Your task to perform on an android device: toggle sleep mode Image 0: 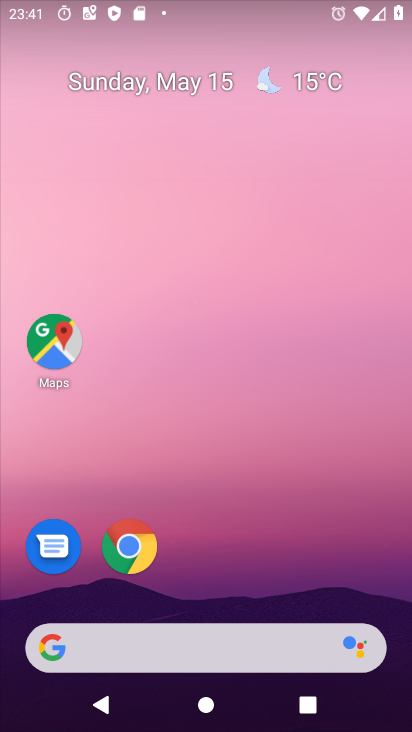
Step 0: drag from (302, 667) to (242, 117)
Your task to perform on an android device: toggle sleep mode Image 1: 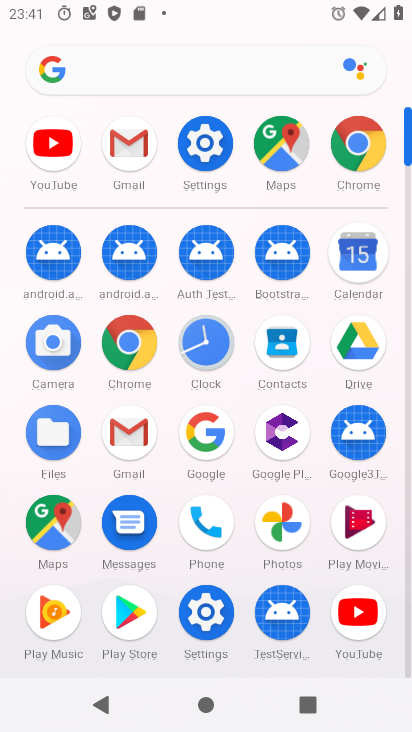
Step 1: click (200, 139)
Your task to perform on an android device: toggle sleep mode Image 2: 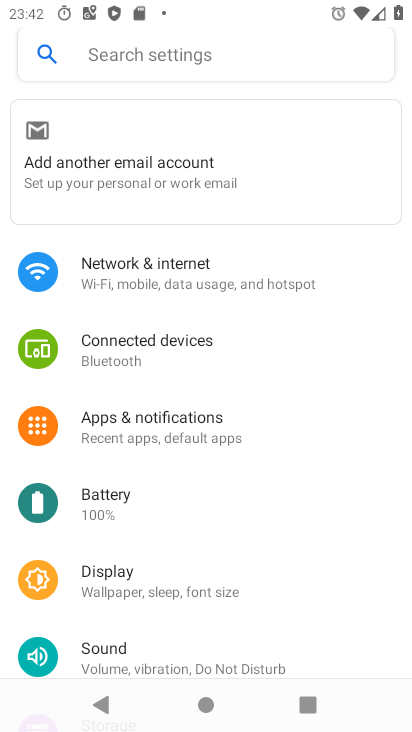
Step 2: drag from (154, 516) to (127, 276)
Your task to perform on an android device: toggle sleep mode Image 3: 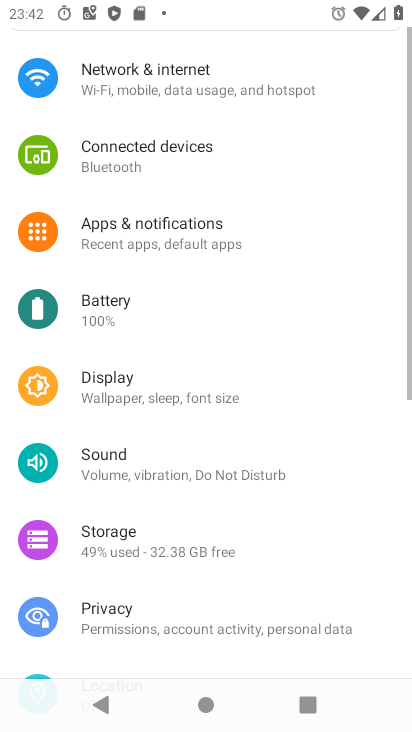
Step 3: drag from (158, 418) to (133, 155)
Your task to perform on an android device: toggle sleep mode Image 4: 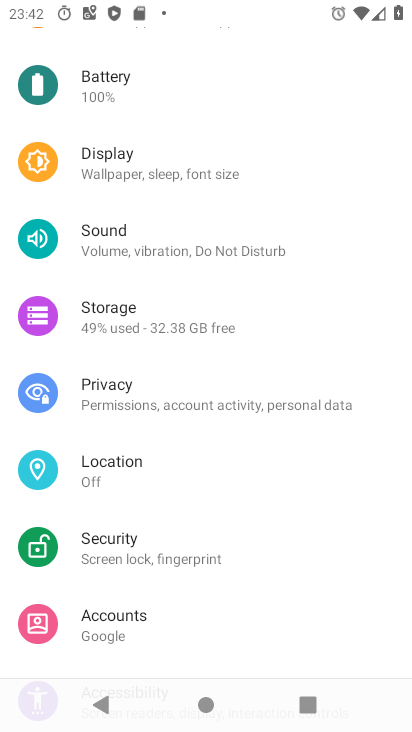
Step 4: drag from (125, 229) to (218, 581)
Your task to perform on an android device: toggle sleep mode Image 5: 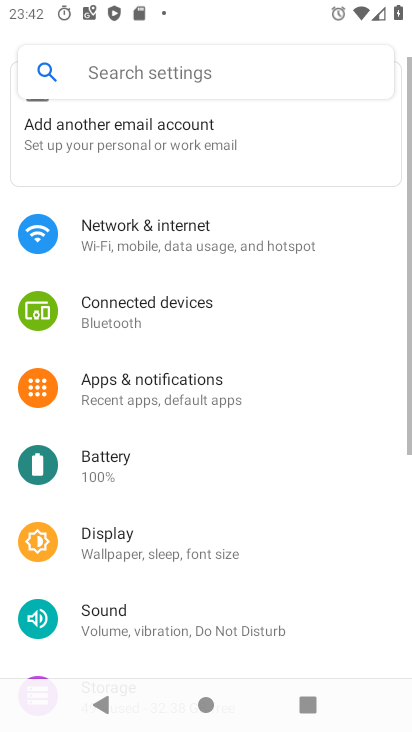
Step 5: drag from (148, 260) to (146, 639)
Your task to perform on an android device: toggle sleep mode Image 6: 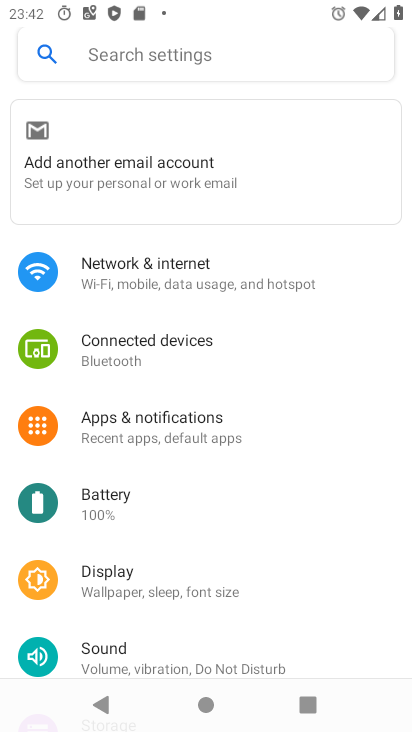
Step 6: click (113, 580)
Your task to perform on an android device: toggle sleep mode Image 7: 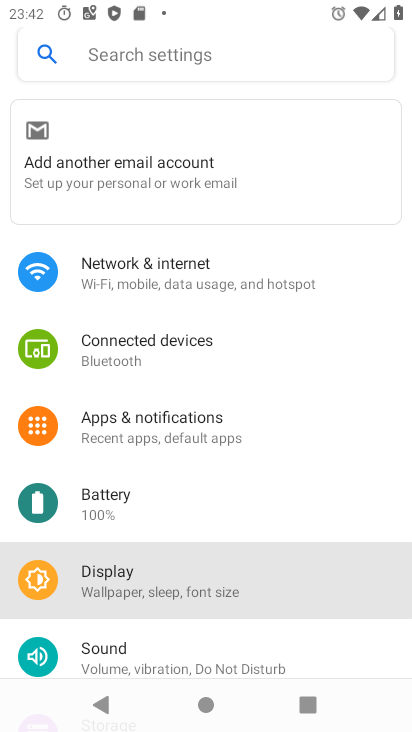
Step 7: click (113, 580)
Your task to perform on an android device: toggle sleep mode Image 8: 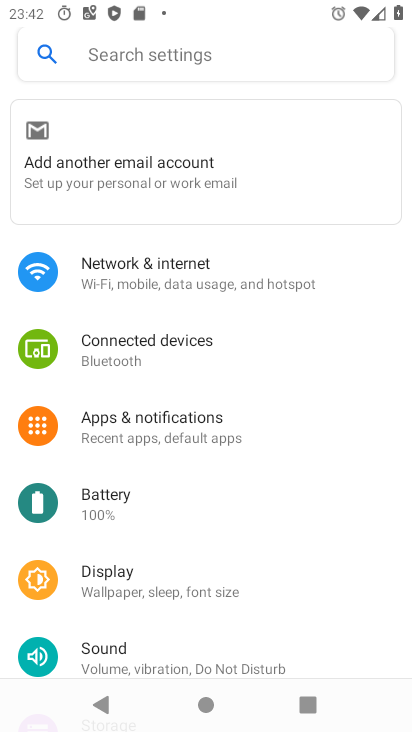
Step 8: click (113, 580)
Your task to perform on an android device: toggle sleep mode Image 9: 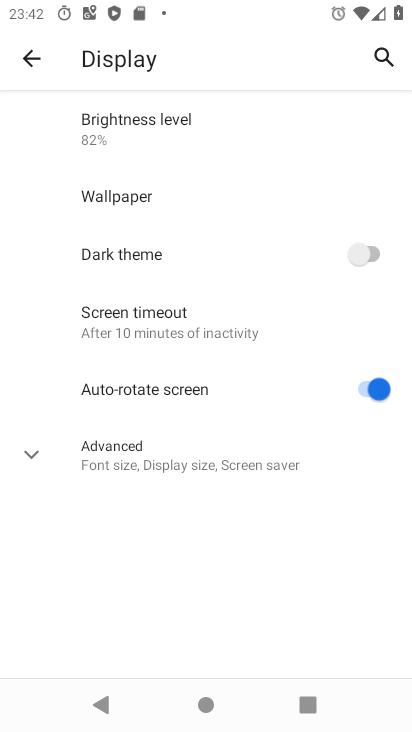
Step 9: click (129, 340)
Your task to perform on an android device: toggle sleep mode Image 10: 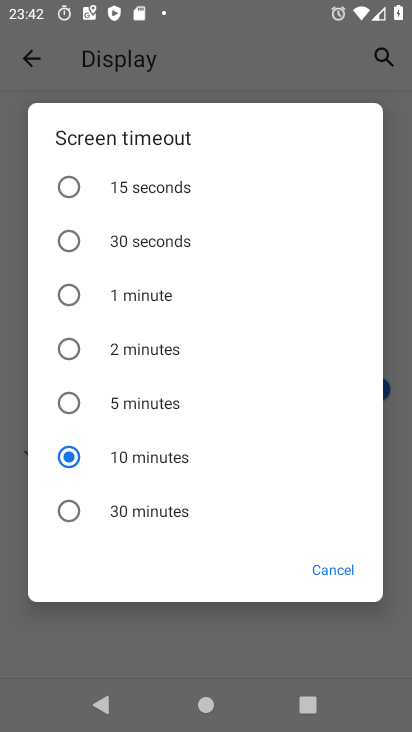
Step 10: click (69, 405)
Your task to perform on an android device: toggle sleep mode Image 11: 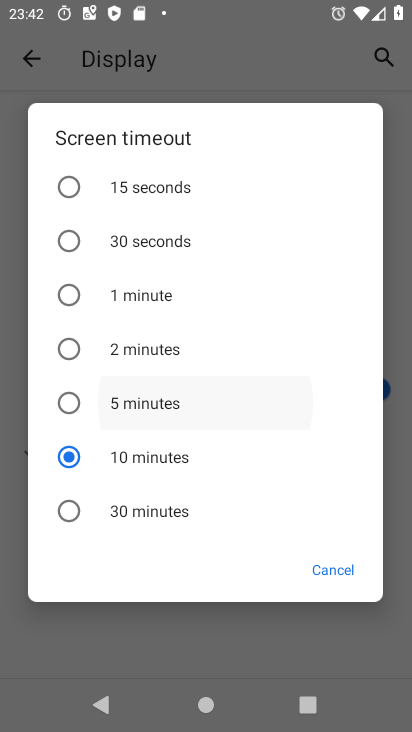
Step 11: click (69, 397)
Your task to perform on an android device: toggle sleep mode Image 12: 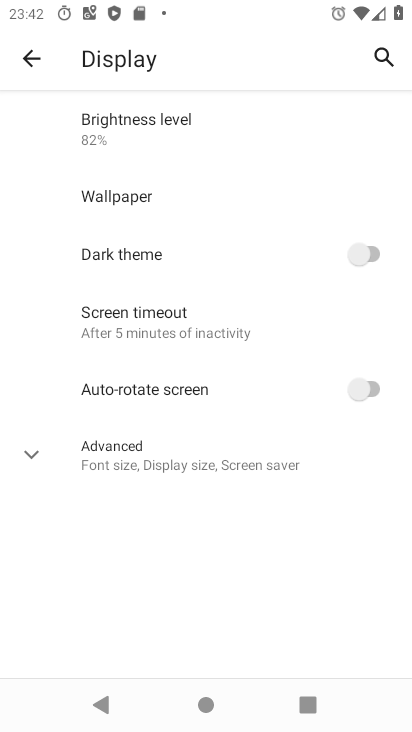
Step 12: click (351, 390)
Your task to perform on an android device: toggle sleep mode Image 13: 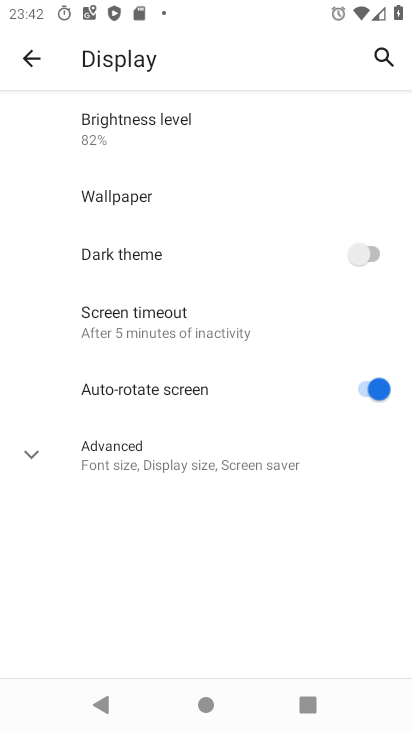
Step 13: click (131, 325)
Your task to perform on an android device: toggle sleep mode Image 14: 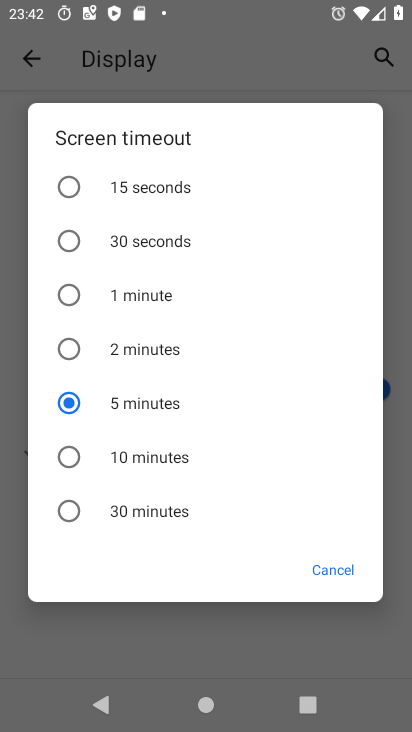
Step 14: click (64, 354)
Your task to perform on an android device: toggle sleep mode Image 15: 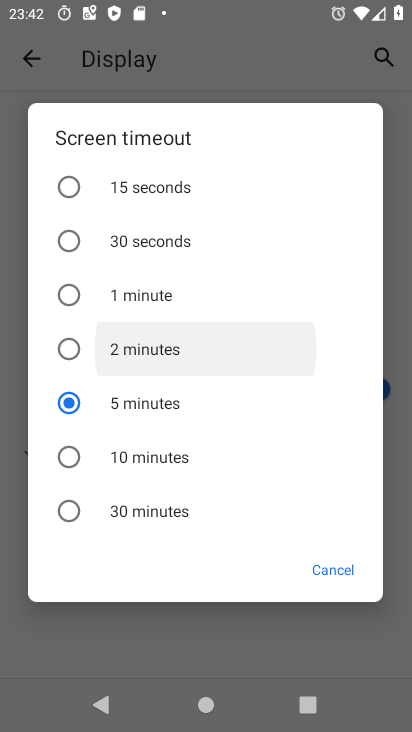
Step 15: click (70, 342)
Your task to perform on an android device: toggle sleep mode Image 16: 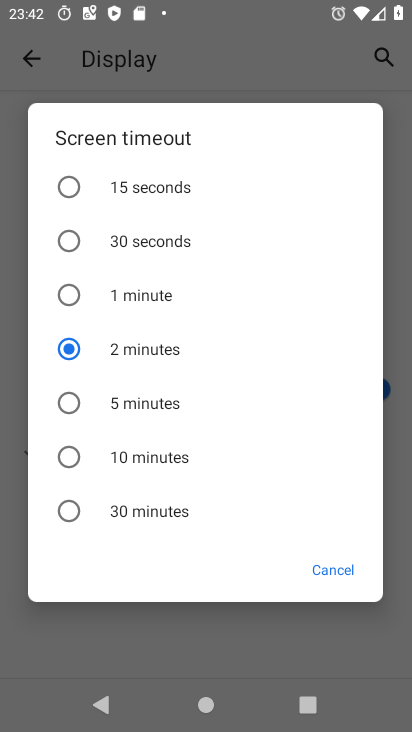
Step 16: task complete